Your task to perform on an android device: When is my next meeting? Image 0: 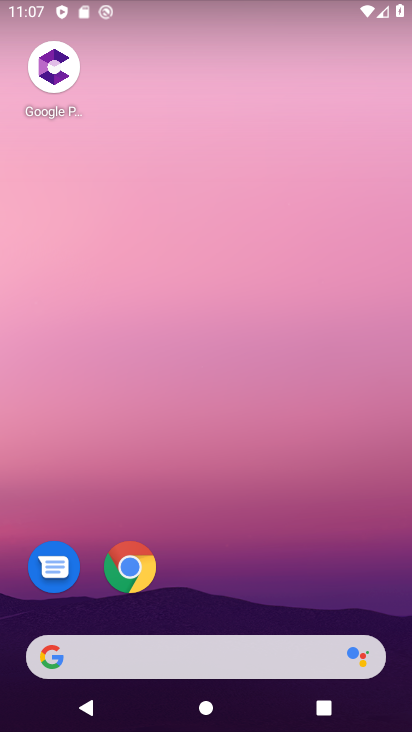
Step 0: drag from (339, 553) to (339, 68)
Your task to perform on an android device: When is my next meeting? Image 1: 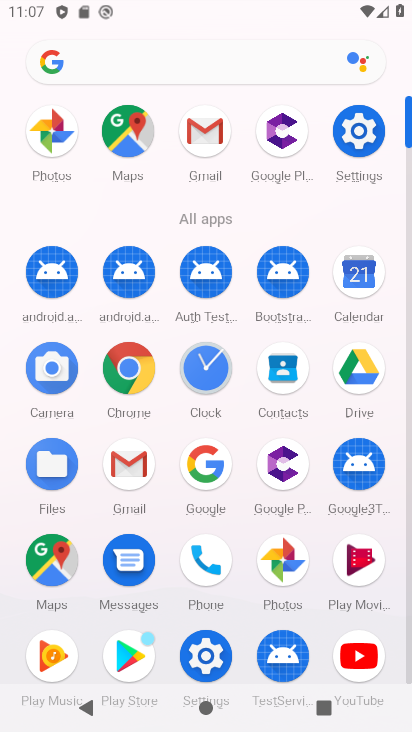
Step 1: click (374, 284)
Your task to perform on an android device: When is my next meeting? Image 2: 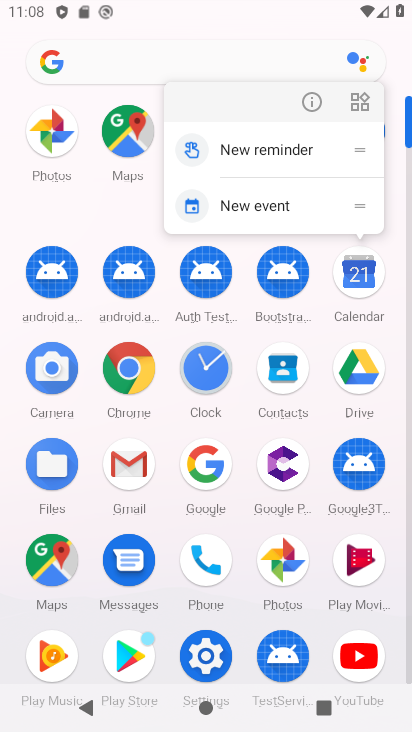
Step 2: click (368, 286)
Your task to perform on an android device: When is my next meeting? Image 3: 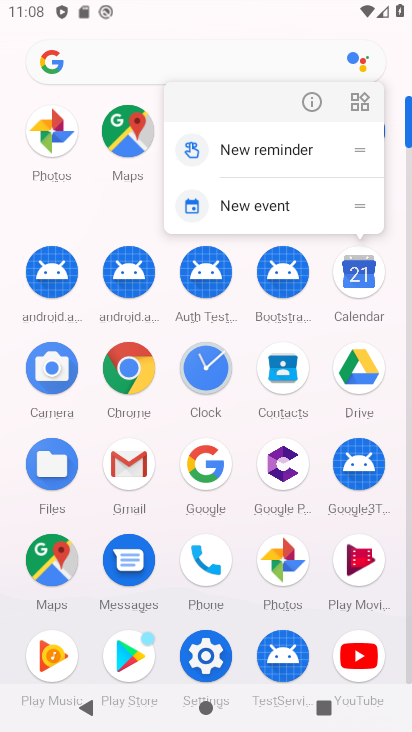
Step 3: click (368, 286)
Your task to perform on an android device: When is my next meeting? Image 4: 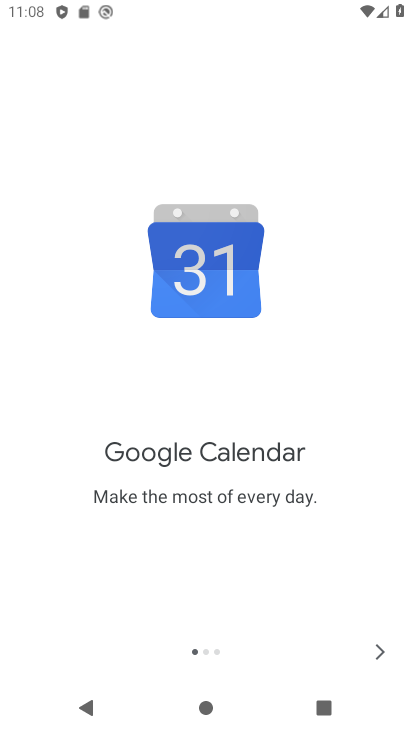
Step 4: click (378, 655)
Your task to perform on an android device: When is my next meeting? Image 5: 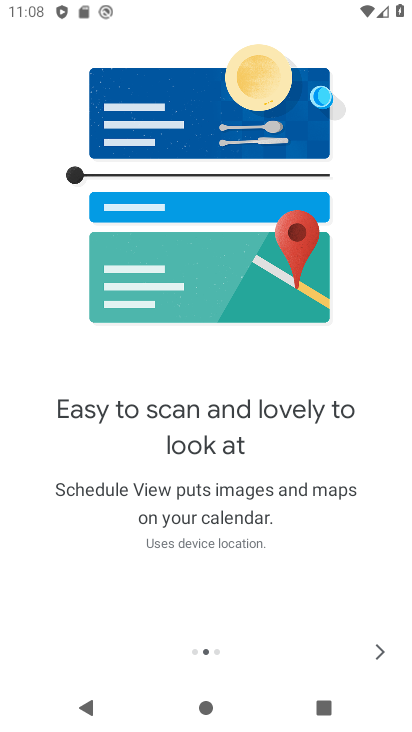
Step 5: click (378, 655)
Your task to perform on an android device: When is my next meeting? Image 6: 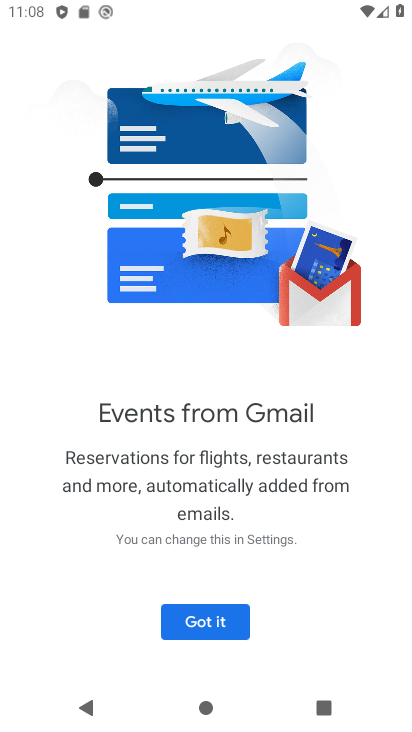
Step 6: click (212, 619)
Your task to perform on an android device: When is my next meeting? Image 7: 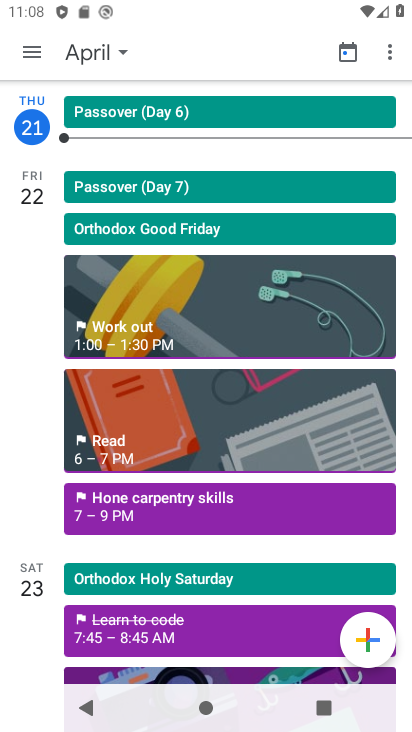
Step 7: drag from (35, 477) to (39, 285)
Your task to perform on an android device: When is my next meeting? Image 8: 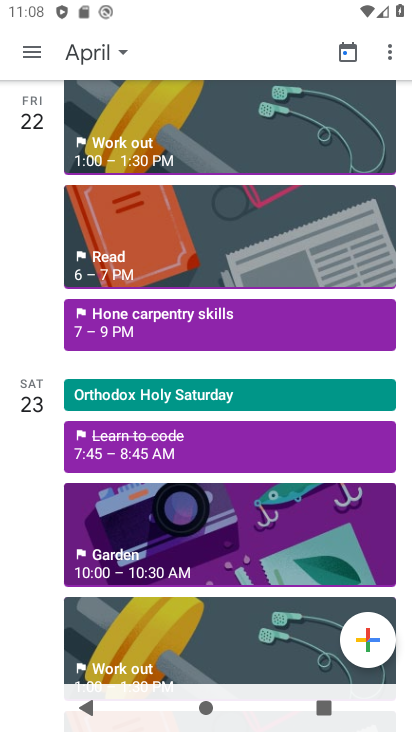
Step 8: drag from (22, 546) to (15, 339)
Your task to perform on an android device: When is my next meeting? Image 9: 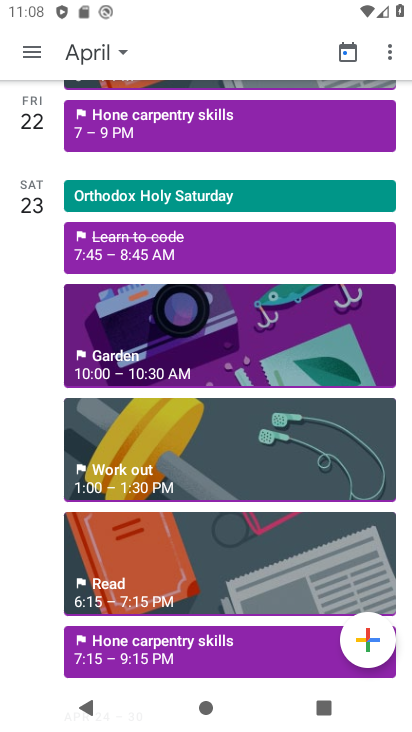
Step 9: drag from (27, 543) to (26, 351)
Your task to perform on an android device: When is my next meeting? Image 10: 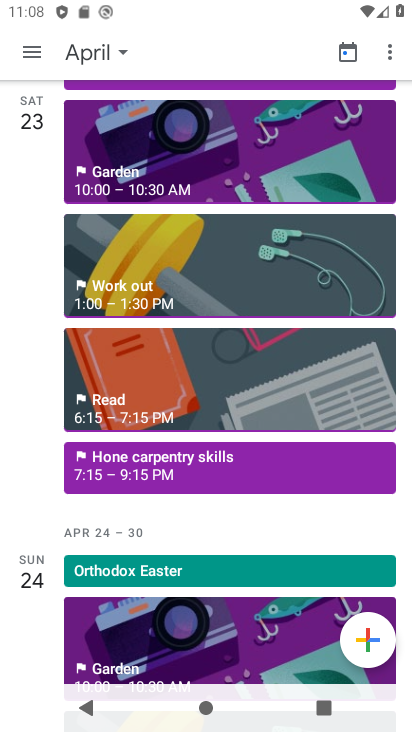
Step 10: drag from (27, 635) to (27, 390)
Your task to perform on an android device: When is my next meeting? Image 11: 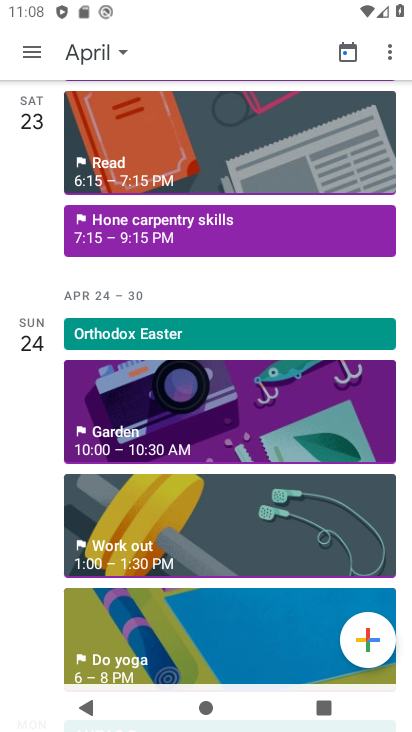
Step 11: drag from (11, 511) to (0, 288)
Your task to perform on an android device: When is my next meeting? Image 12: 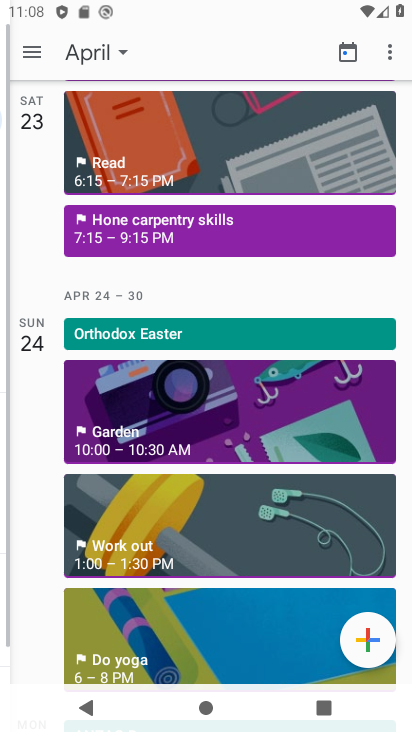
Step 12: drag from (37, 508) to (53, 279)
Your task to perform on an android device: When is my next meeting? Image 13: 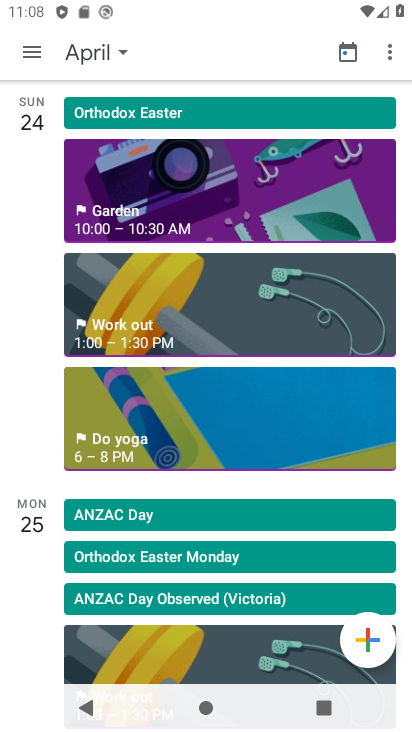
Step 13: drag from (36, 546) to (43, 316)
Your task to perform on an android device: When is my next meeting? Image 14: 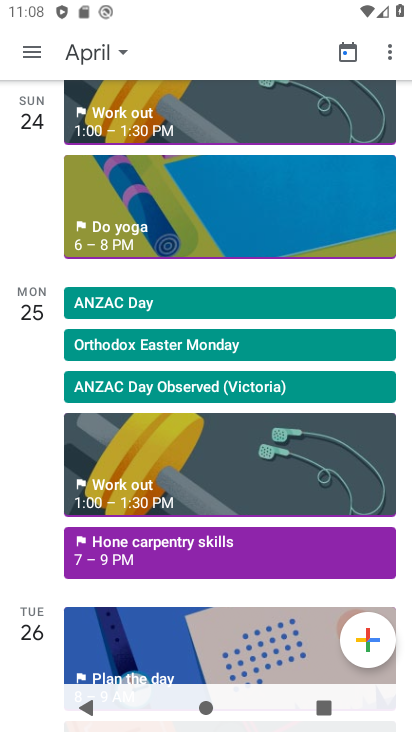
Step 14: drag from (18, 487) to (22, 356)
Your task to perform on an android device: When is my next meeting? Image 15: 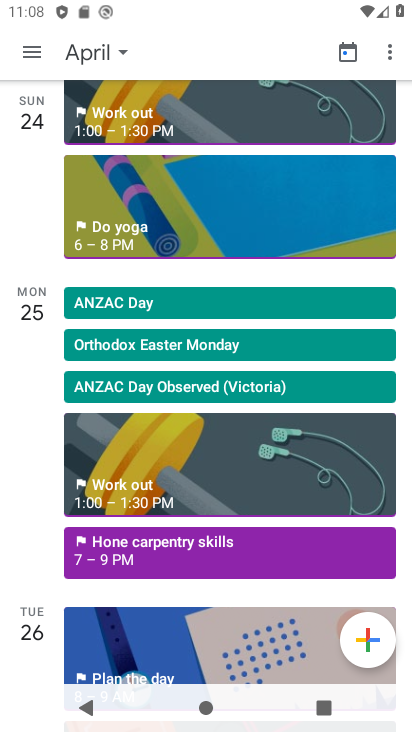
Step 15: drag from (31, 561) to (57, 323)
Your task to perform on an android device: When is my next meeting? Image 16: 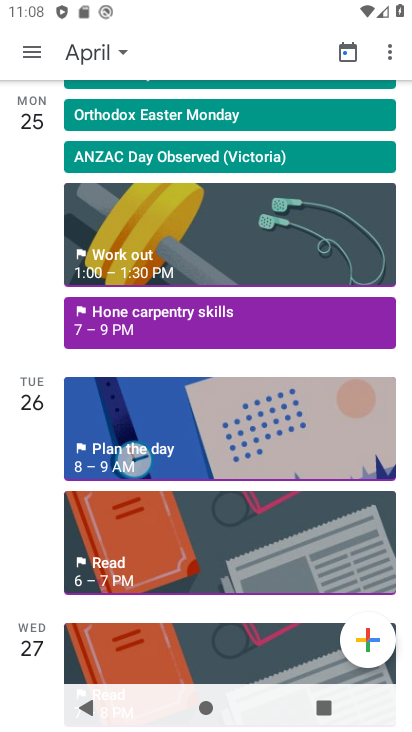
Step 16: drag from (26, 467) to (28, 258)
Your task to perform on an android device: When is my next meeting? Image 17: 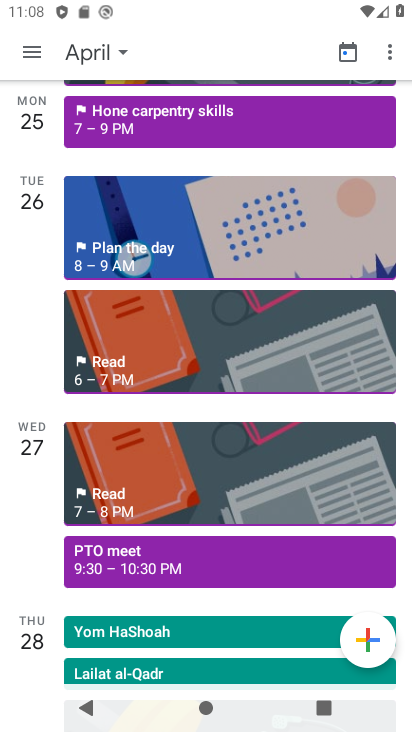
Step 17: click (105, 554)
Your task to perform on an android device: When is my next meeting? Image 18: 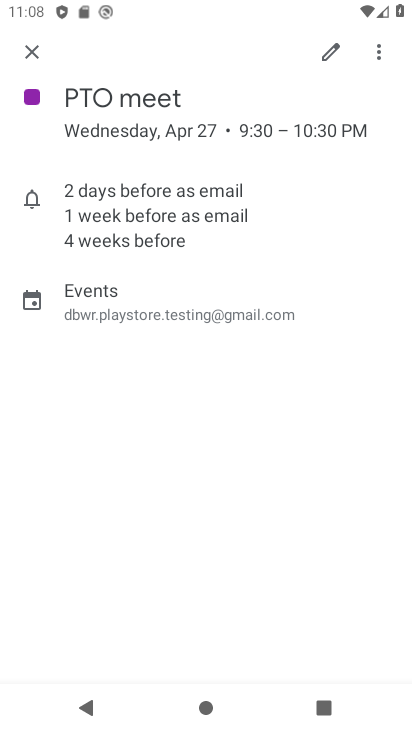
Step 18: task complete